Your task to perform on an android device: Add "alienware aurora" to the cart on newegg.com Image 0: 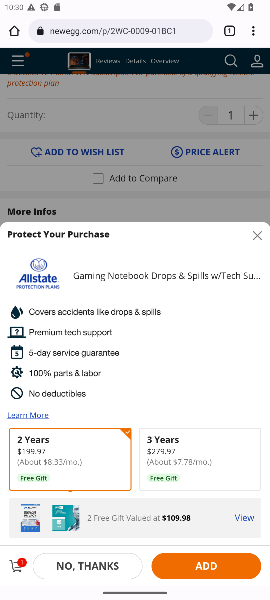
Step 0: press home button
Your task to perform on an android device: Add "alienware aurora" to the cart on newegg.com Image 1: 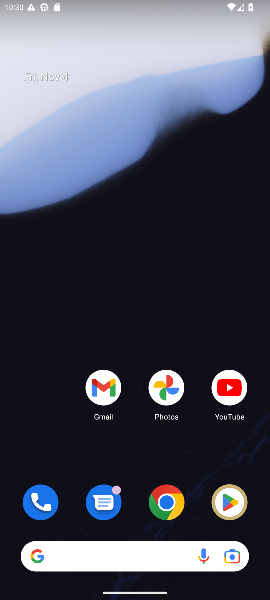
Step 1: drag from (138, 479) to (129, 112)
Your task to perform on an android device: Add "alienware aurora" to the cart on newegg.com Image 2: 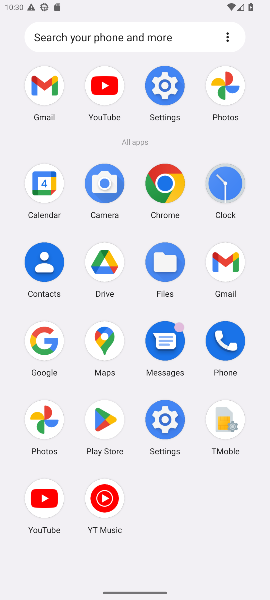
Step 2: click (166, 194)
Your task to perform on an android device: Add "alienware aurora" to the cart on newegg.com Image 3: 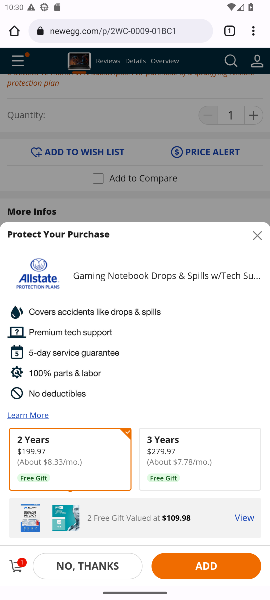
Step 3: click (143, 31)
Your task to perform on an android device: Add "alienware aurora" to the cart on newegg.com Image 4: 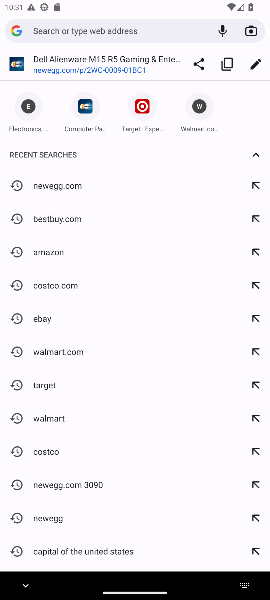
Step 4: type "newegg.com"
Your task to perform on an android device: Add "alienware aurora" to the cart on newegg.com Image 5: 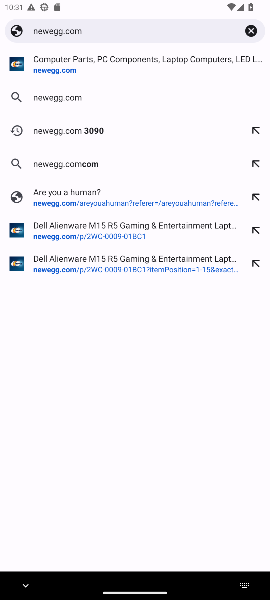
Step 5: press enter
Your task to perform on an android device: Add "alienware aurora" to the cart on newegg.com Image 6: 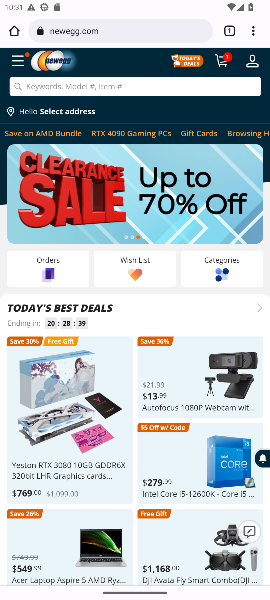
Step 6: click (132, 86)
Your task to perform on an android device: Add "alienware aurora" to the cart on newegg.com Image 7: 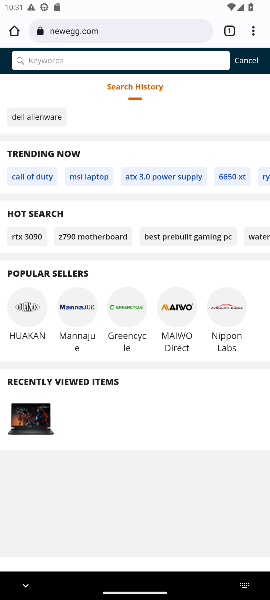
Step 7: type "alienware aurora"
Your task to perform on an android device: Add "alienware aurora" to the cart on newegg.com Image 8: 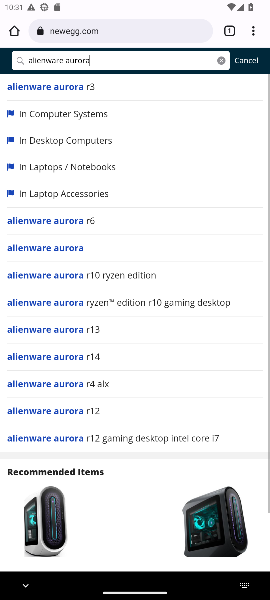
Step 8: press enter
Your task to perform on an android device: Add "alienware aurora" to the cart on newegg.com Image 9: 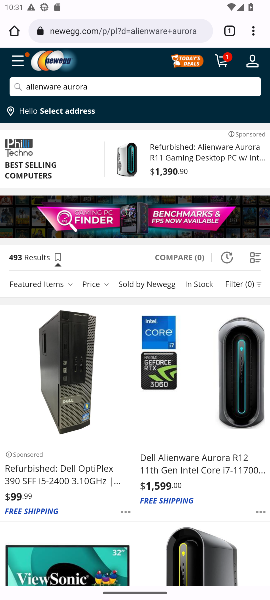
Step 9: click (228, 406)
Your task to perform on an android device: Add "alienware aurora" to the cart on newegg.com Image 10: 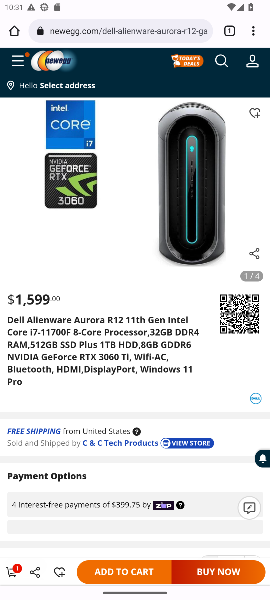
Step 10: click (118, 566)
Your task to perform on an android device: Add "alienware aurora" to the cart on newegg.com Image 11: 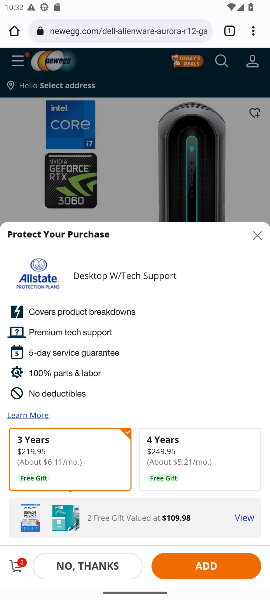
Step 11: task complete